Your task to perform on an android device: Open Chrome and go to the settings page Image 0: 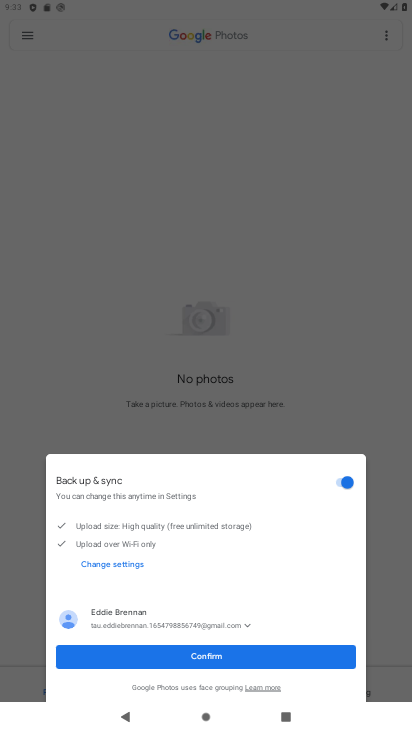
Step 0: press home button
Your task to perform on an android device: Open Chrome and go to the settings page Image 1: 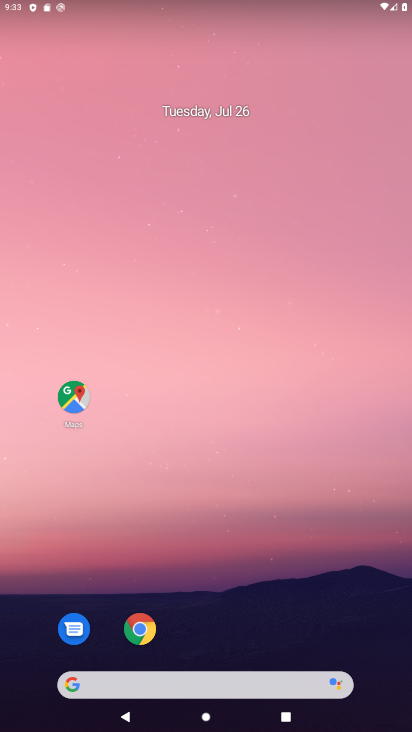
Step 1: click (134, 618)
Your task to perform on an android device: Open Chrome and go to the settings page Image 2: 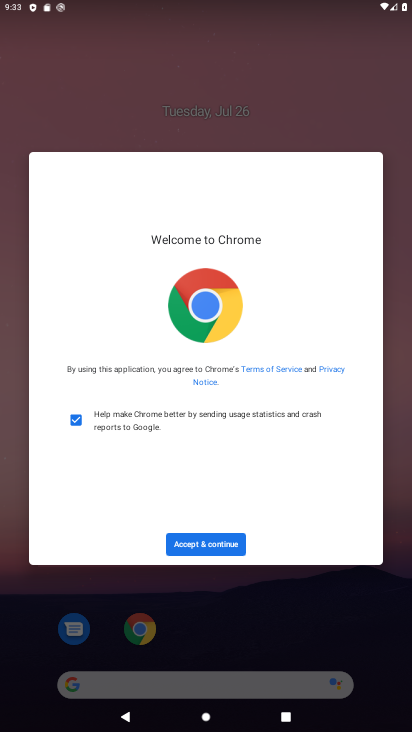
Step 2: click (239, 540)
Your task to perform on an android device: Open Chrome and go to the settings page Image 3: 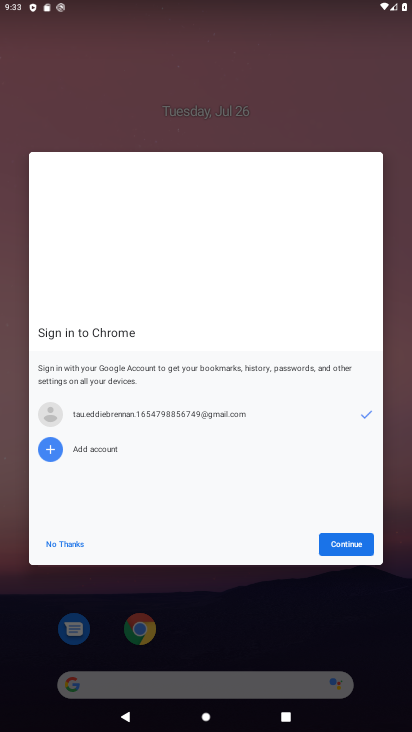
Step 3: click (350, 554)
Your task to perform on an android device: Open Chrome and go to the settings page Image 4: 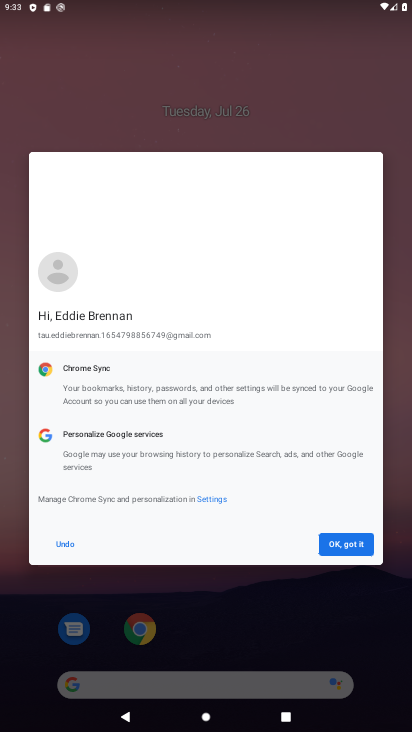
Step 4: click (350, 554)
Your task to perform on an android device: Open Chrome and go to the settings page Image 5: 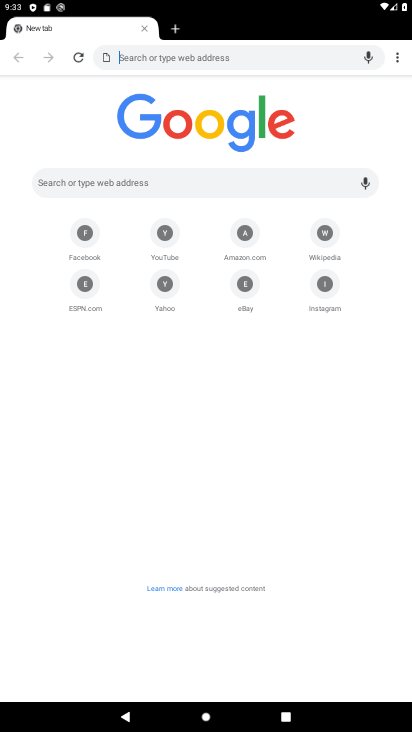
Step 5: click (394, 62)
Your task to perform on an android device: Open Chrome and go to the settings page Image 6: 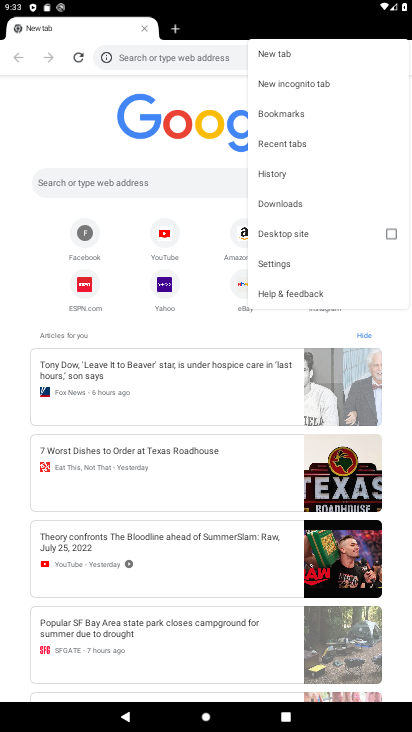
Step 6: click (299, 259)
Your task to perform on an android device: Open Chrome and go to the settings page Image 7: 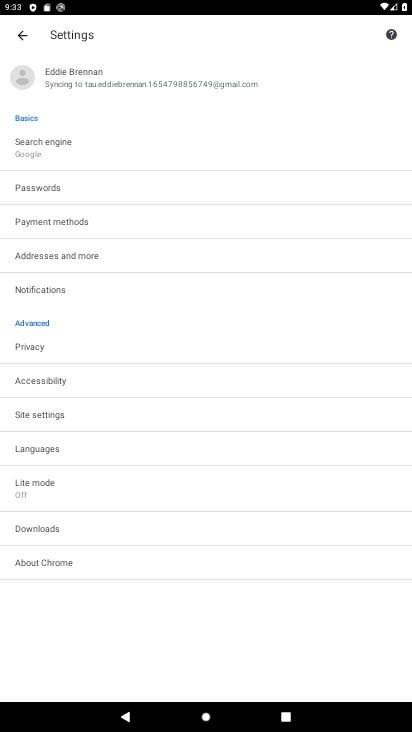
Step 7: task complete